Your task to perform on an android device: open a bookmark in the chrome app Image 0: 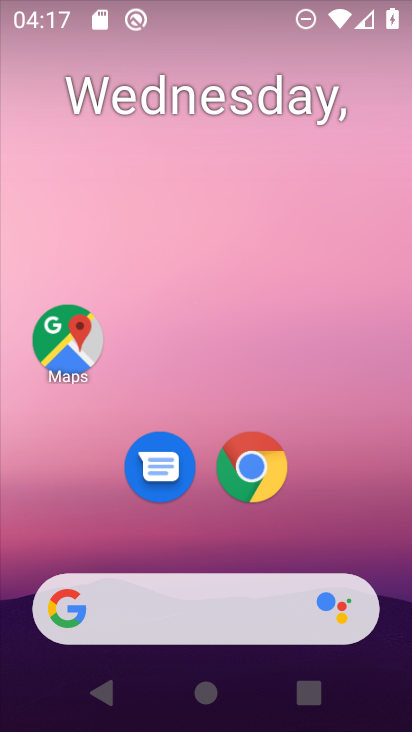
Step 0: click (249, 465)
Your task to perform on an android device: open a bookmark in the chrome app Image 1: 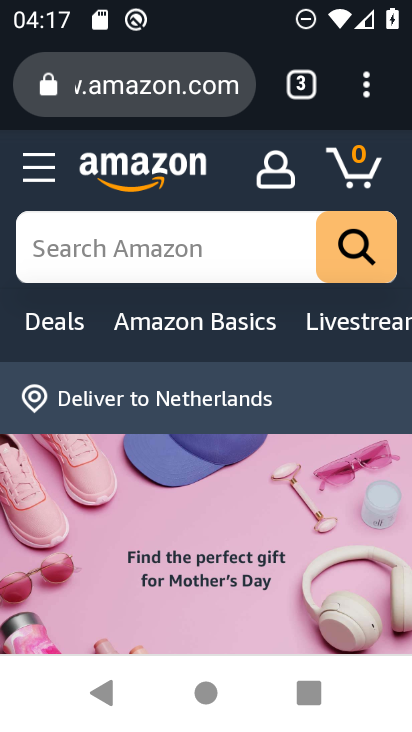
Step 1: click (366, 92)
Your task to perform on an android device: open a bookmark in the chrome app Image 2: 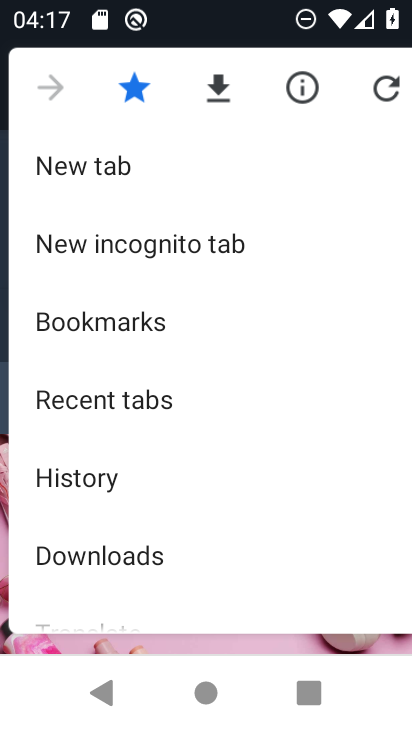
Step 2: click (100, 322)
Your task to perform on an android device: open a bookmark in the chrome app Image 3: 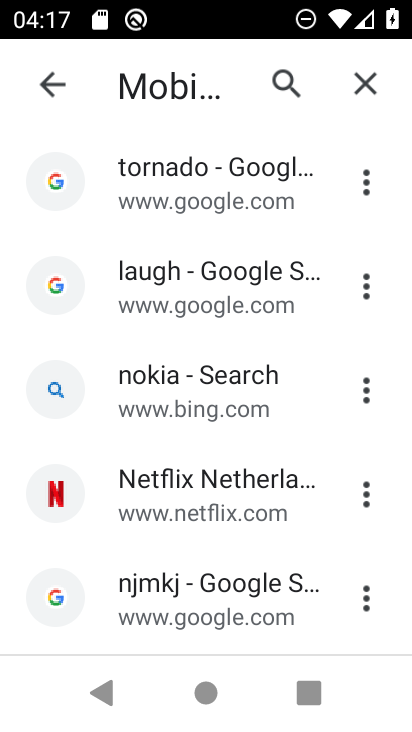
Step 3: click (166, 380)
Your task to perform on an android device: open a bookmark in the chrome app Image 4: 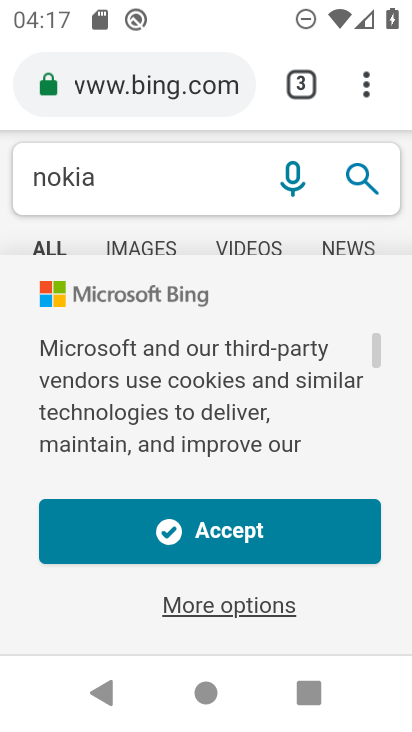
Step 4: task complete